Your task to perform on an android device: Is it going to rain this weekend? Image 0: 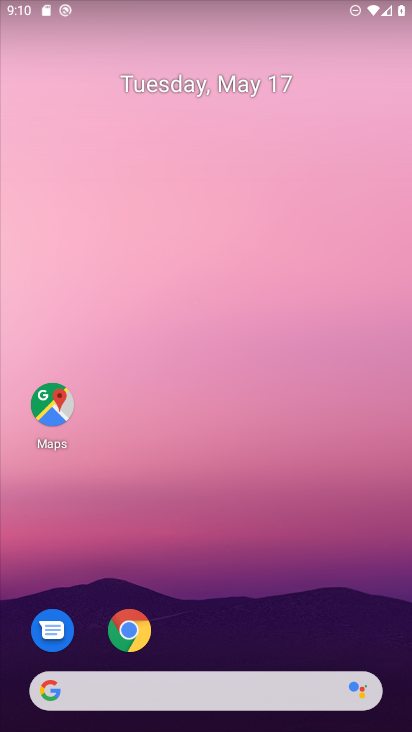
Step 0: click (222, 693)
Your task to perform on an android device: Is it going to rain this weekend? Image 1: 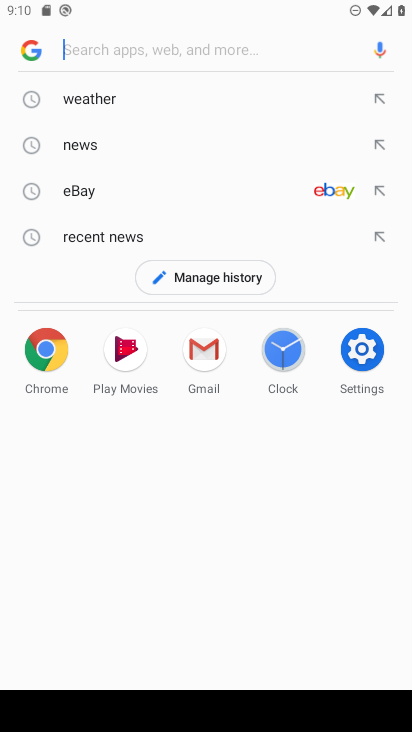
Step 1: click (104, 101)
Your task to perform on an android device: Is it going to rain this weekend? Image 2: 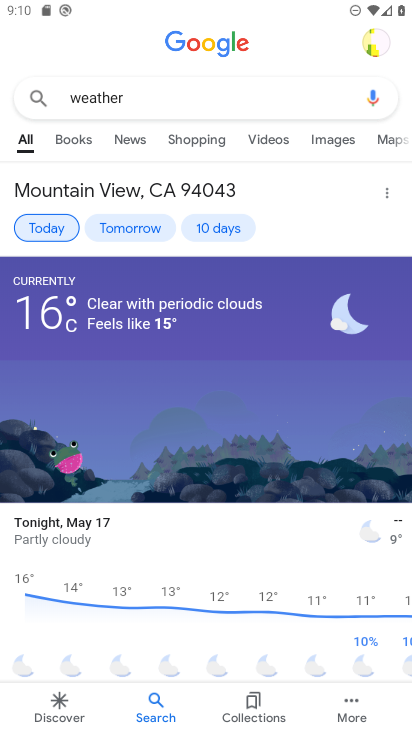
Step 2: click (236, 227)
Your task to perform on an android device: Is it going to rain this weekend? Image 3: 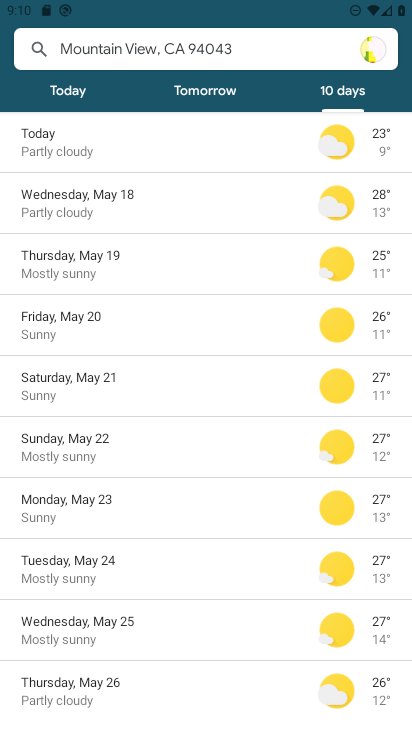
Step 3: task complete